Your task to perform on an android device: toggle airplane mode Image 0: 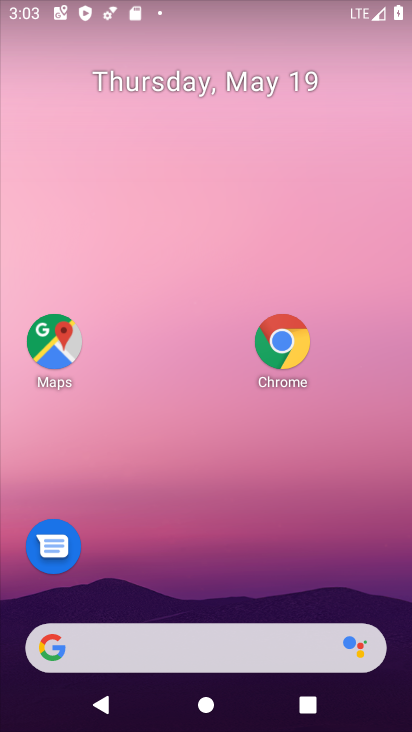
Step 0: press home button
Your task to perform on an android device: toggle airplane mode Image 1: 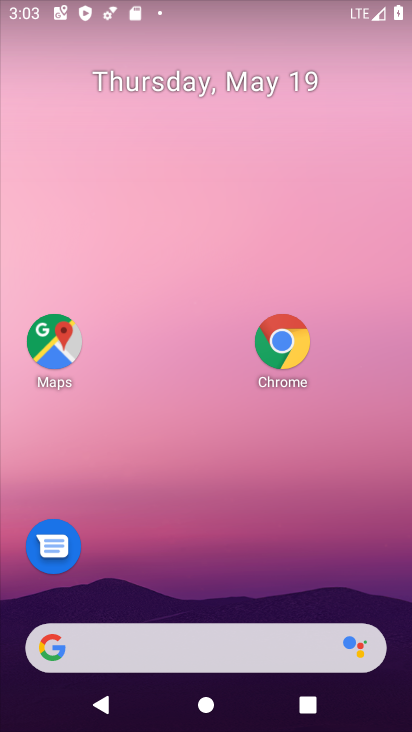
Step 1: drag from (164, 654) to (346, 94)
Your task to perform on an android device: toggle airplane mode Image 2: 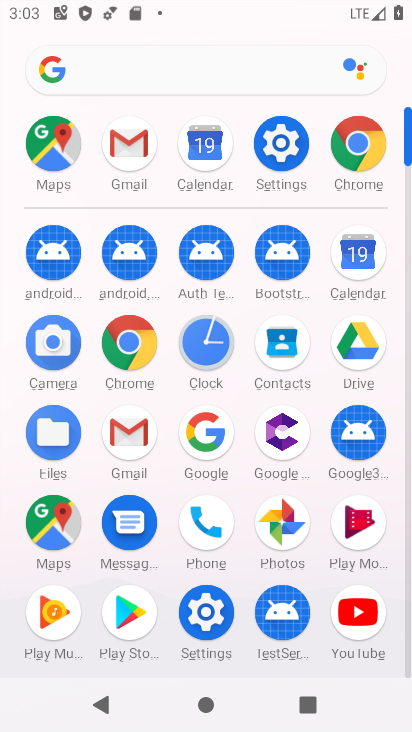
Step 2: click (282, 149)
Your task to perform on an android device: toggle airplane mode Image 3: 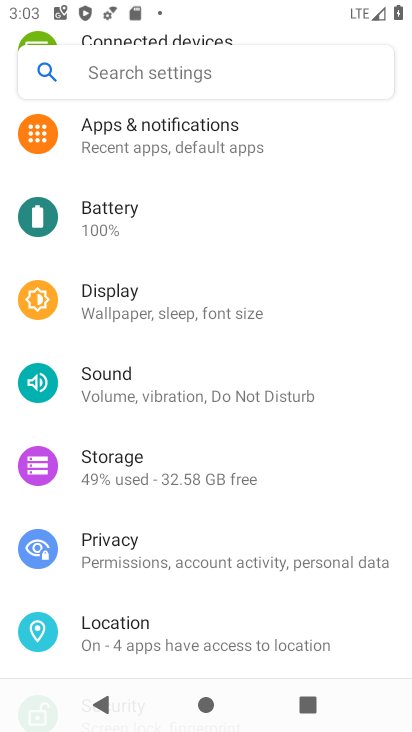
Step 3: drag from (340, 170) to (275, 490)
Your task to perform on an android device: toggle airplane mode Image 4: 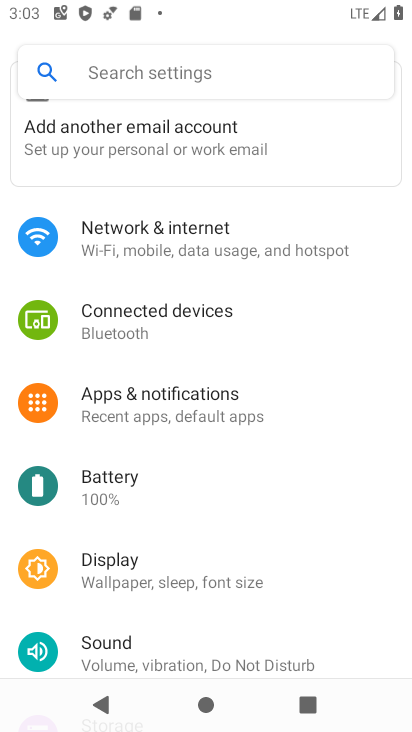
Step 4: click (207, 244)
Your task to perform on an android device: toggle airplane mode Image 5: 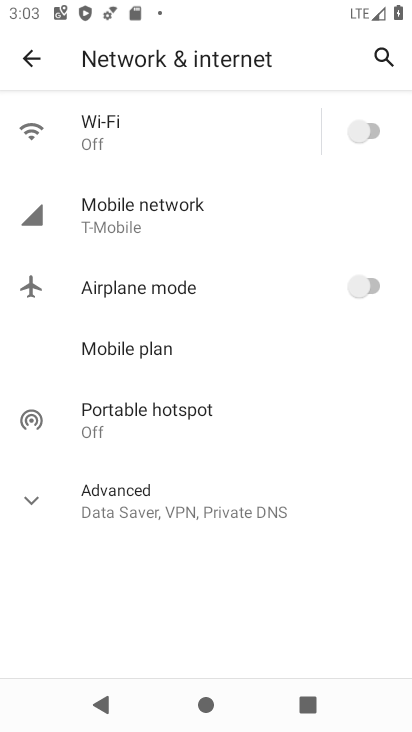
Step 5: click (379, 287)
Your task to perform on an android device: toggle airplane mode Image 6: 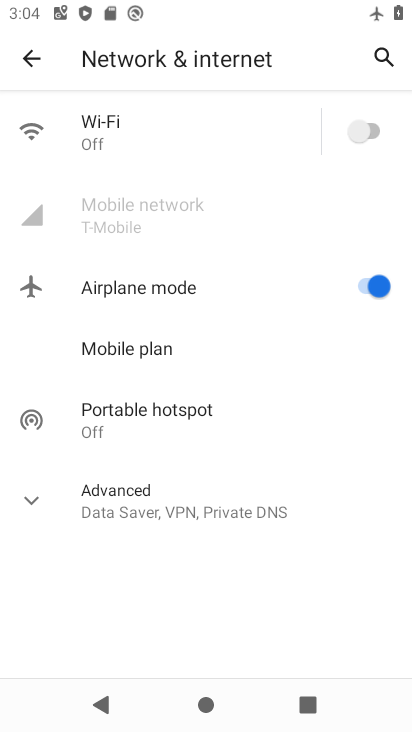
Step 6: task complete